Your task to perform on an android device: Clear all items from cart on ebay. Add "energizer triple a" to the cart on ebay Image 0: 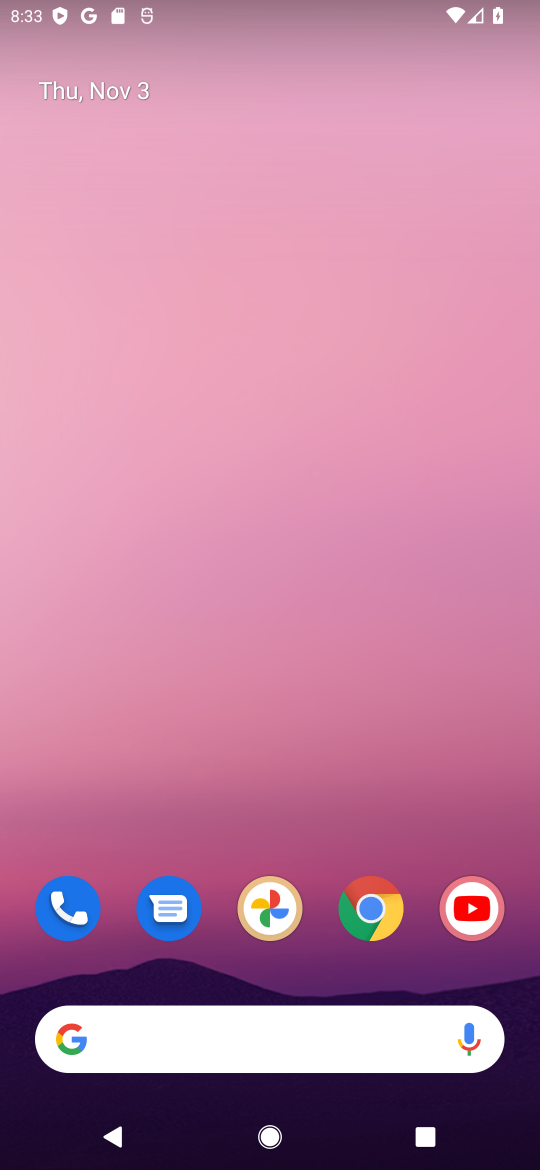
Step 0: click (390, 918)
Your task to perform on an android device: Clear all items from cart on ebay. Add "energizer triple a" to the cart on ebay Image 1: 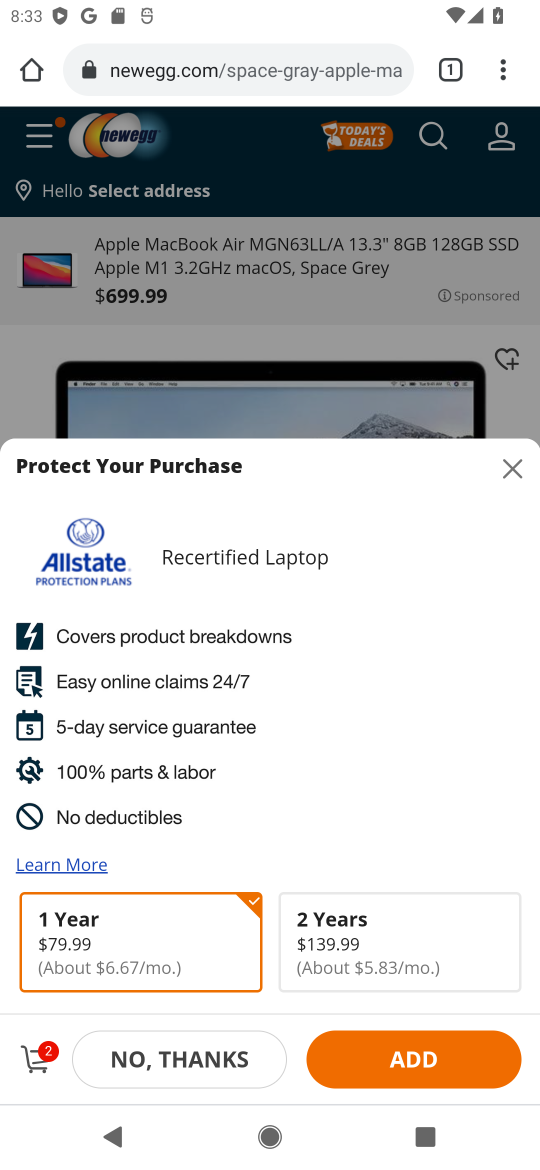
Step 1: click (310, 81)
Your task to perform on an android device: Clear all items from cart on ebay. Add "energizer triple a" to the cart on ebay Image 2: 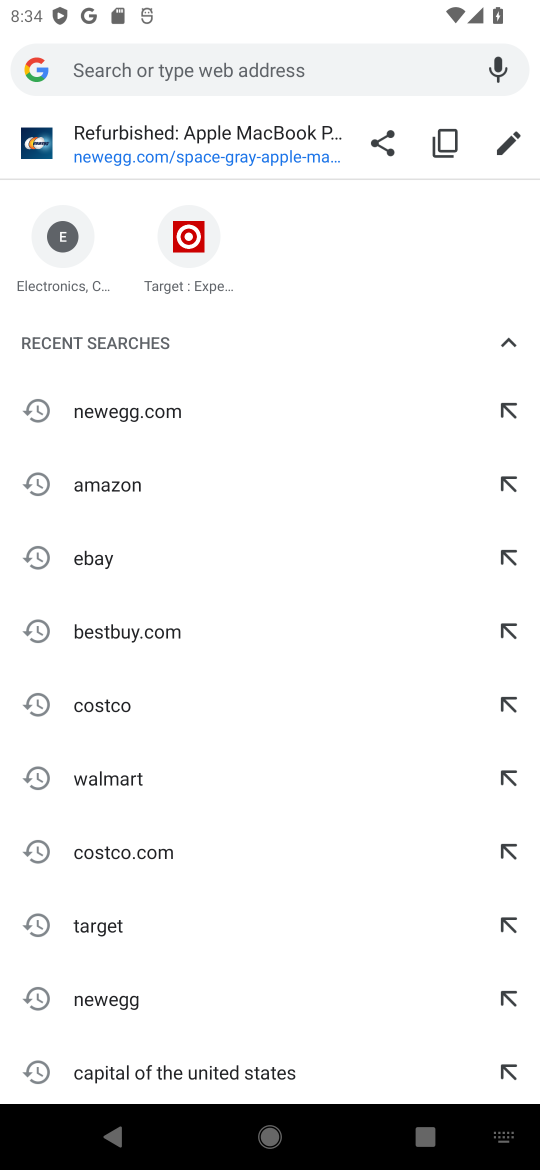
Step 2: click (88, 556)
Your task to perform on an android device: Clear all items from cart on ebay. Add "energizer triple a" to the cart on ebay Image 3: 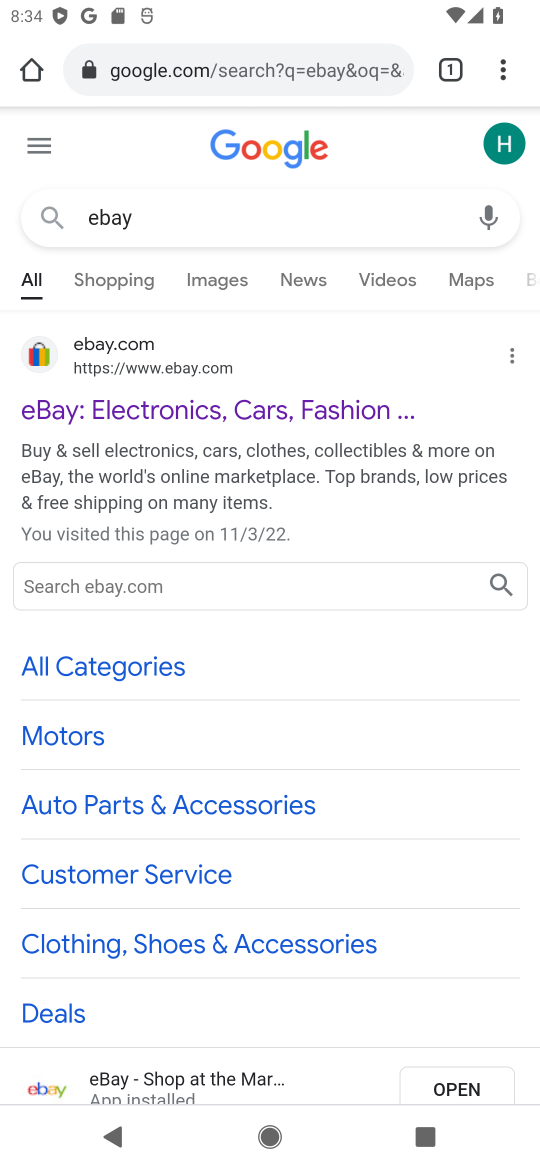
Step 3: click (139, 366)
Your task to perform on an android device: Clear all items from cart on ebay. Add "energizer triple a" to the cart on ebay Image 4: 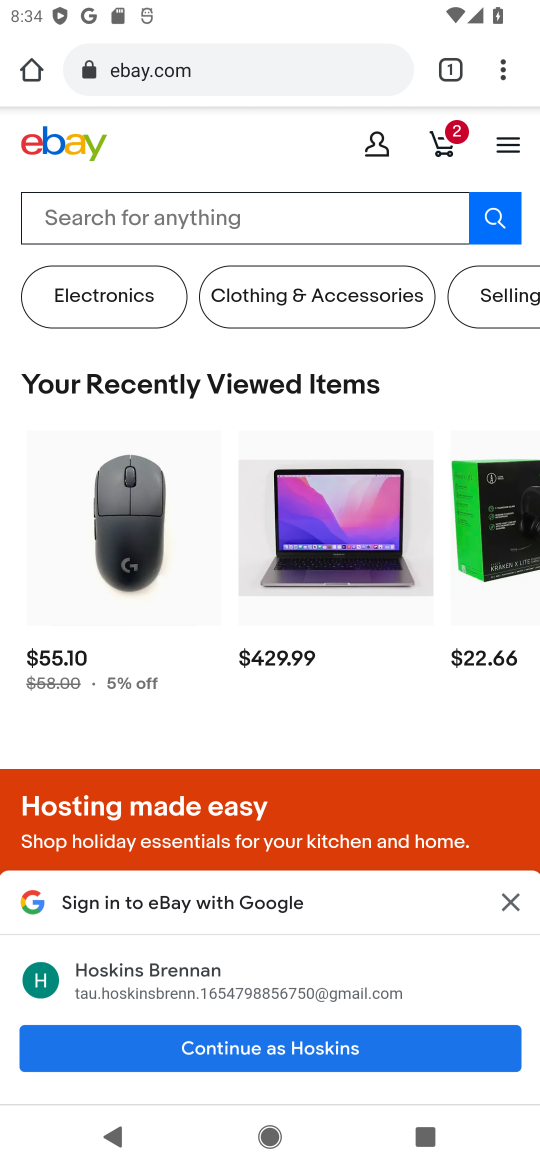
Step 4: click (445, 149)
Your task to perform on an android device: Clear all items from cart on ebay. Add "energizer triple a" to the cart on ebay Image 5: 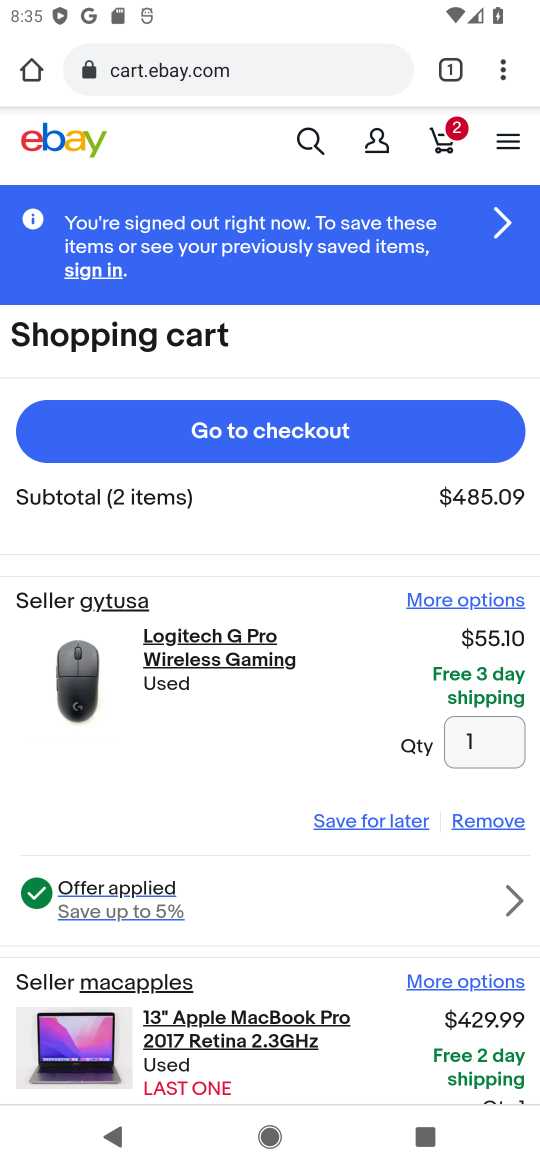
Step 5: click (480, 817)
Your task to perform on an android device: Clear all items from cart on ebay. Add "energizer triple a" to the cart on ebay Image 6: 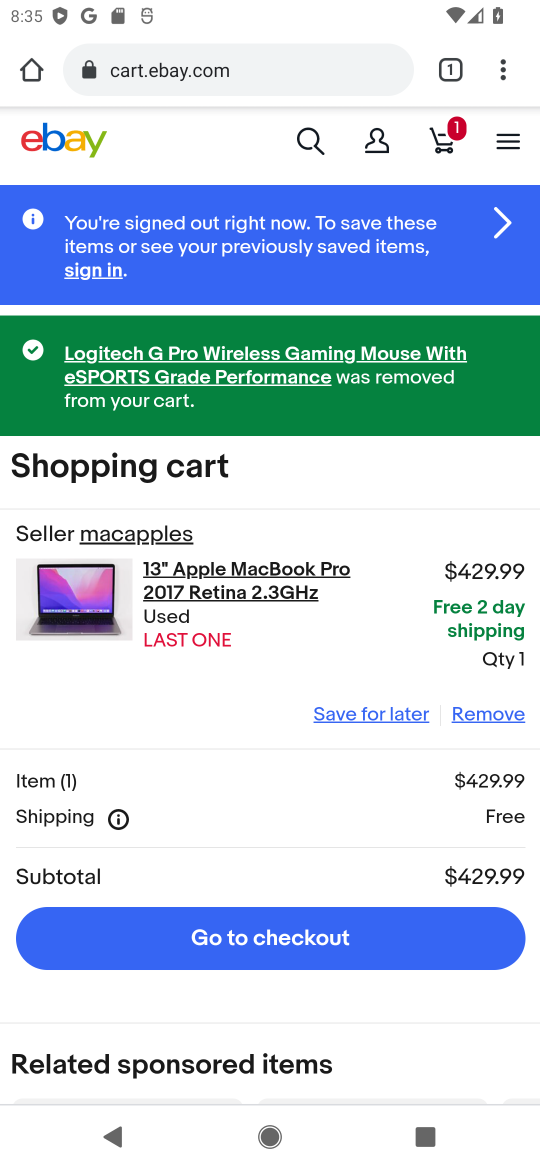
Step 6: click (485, 715)
Your task to perform on an android device: Clear all items from cart on ebay. Add "energizer triple a" to the cart on ebay Image 7: 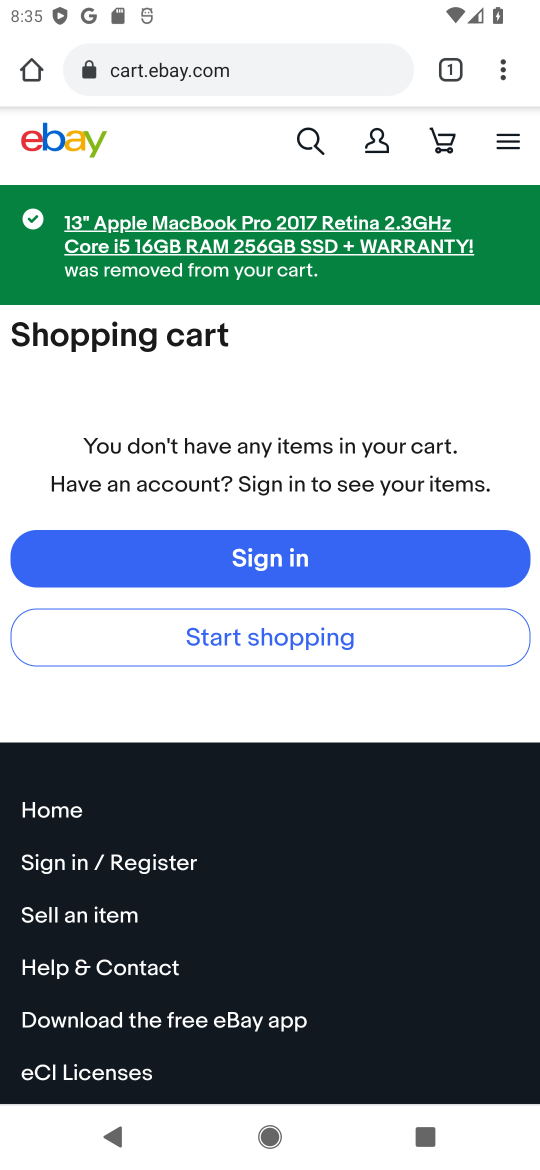
Step 7: click (308, 141)
Your task to perform on an android device: Clear all items from cart on ebay. Add "energizer triple a" to the cart on ebay Image 8: 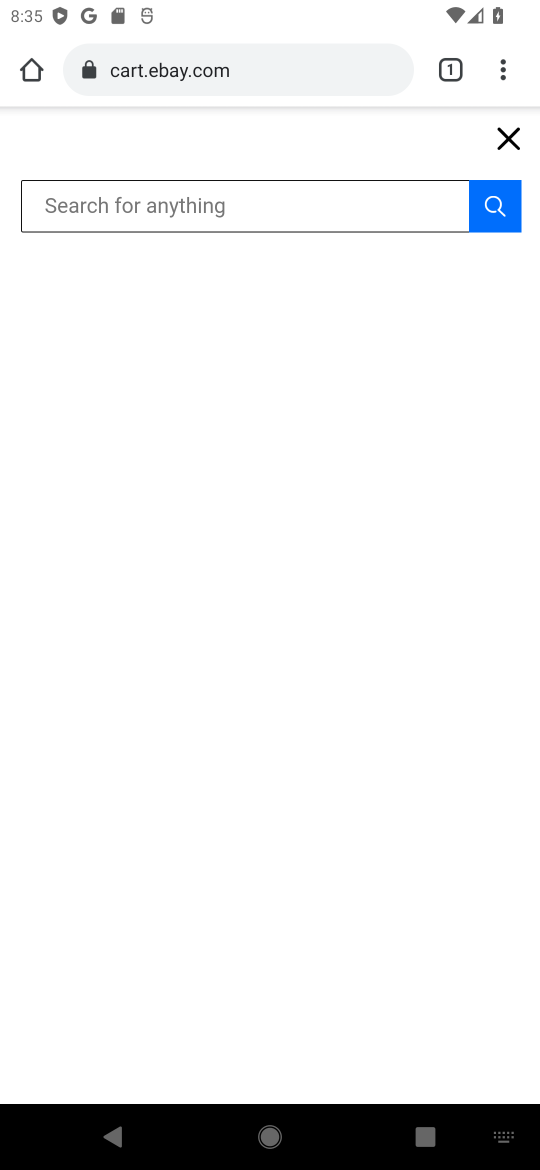
Step 8: type "energizer triple a"
Your task to perform on an android device: Clear all items from cart on ebay. Add "energizer triple a" to the cart on ebay Image 9: 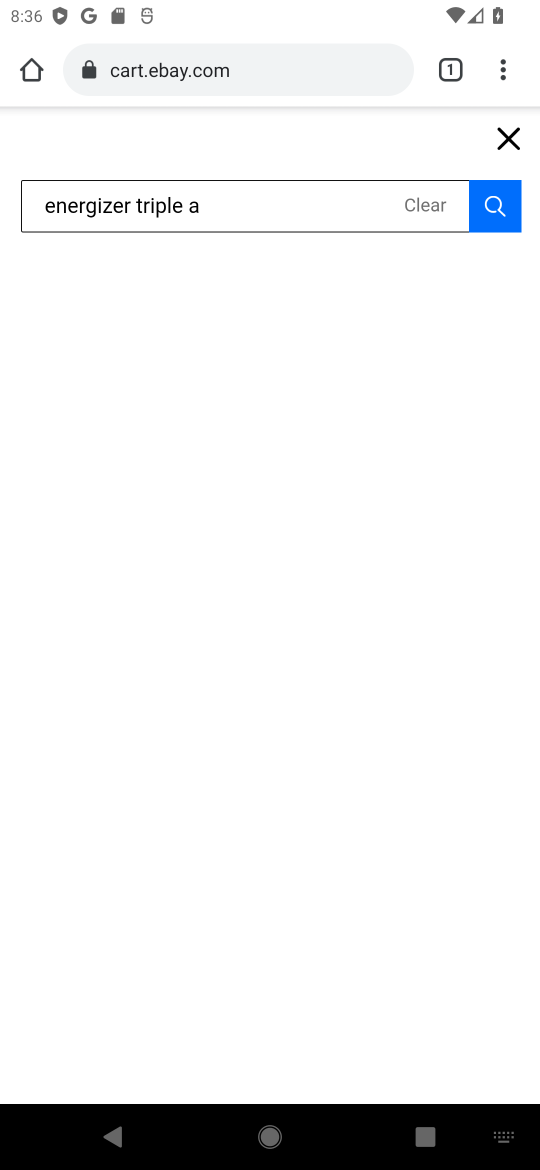
Step 9: click (445, 382)
Your task to perform on an android device: Clear all items from cart on ebay. Add "energizer triple a" to the cart on ebay Image 10: 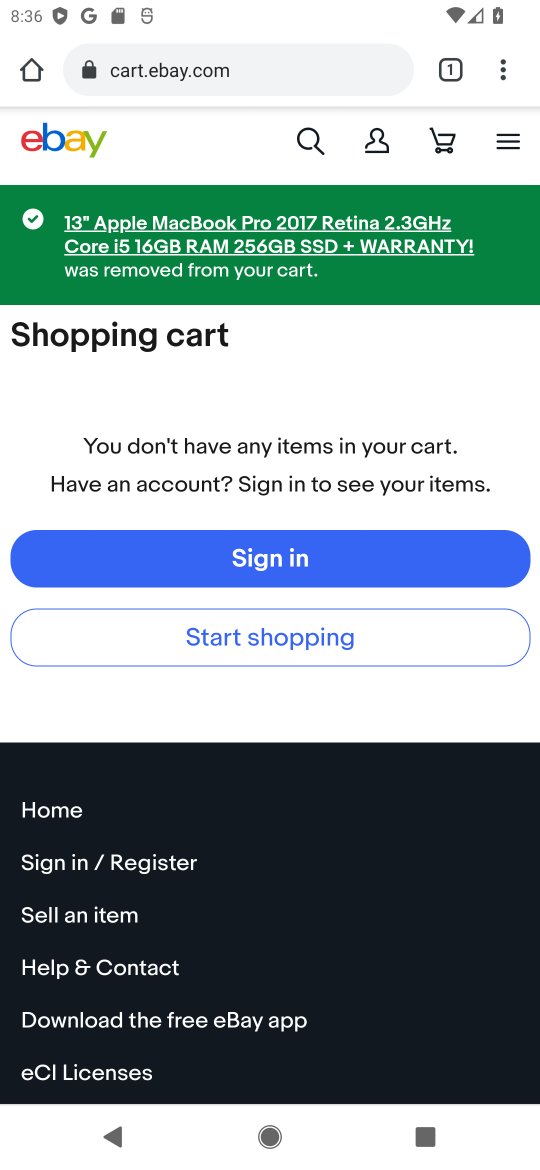
Step 10: click (308, 136)
Your task to perform on an android device: Clear all items from cart on ebay. Add "energizer triple a" to the cart on ebay Image 11: 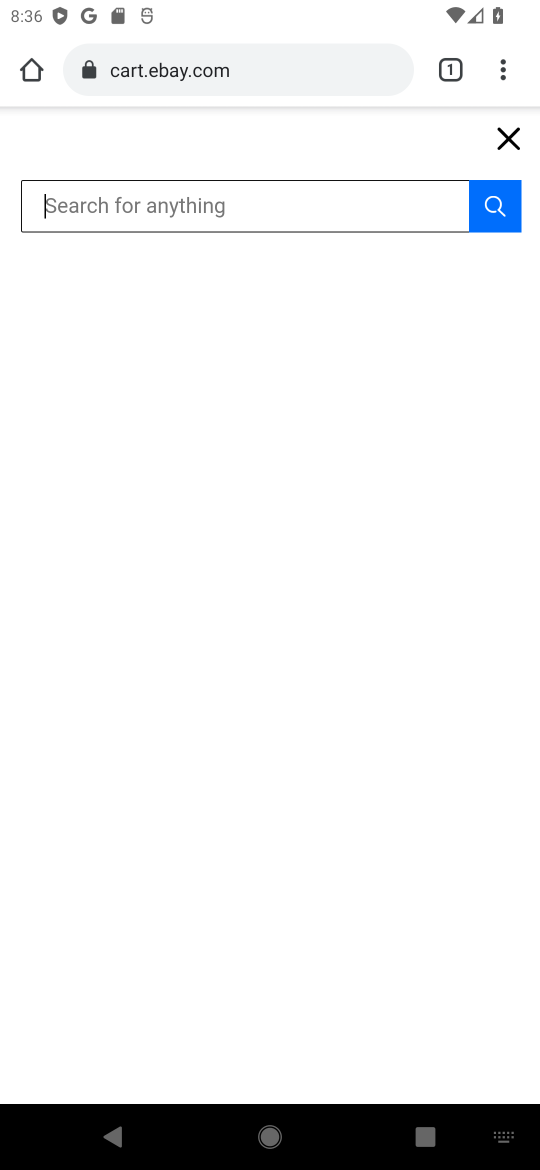
Step 11: type "energizer triple a"
Your task to perform on an android device: Clear all items from cart on ebay. Add "energizer triple a" to the cart on ebay Image 12: 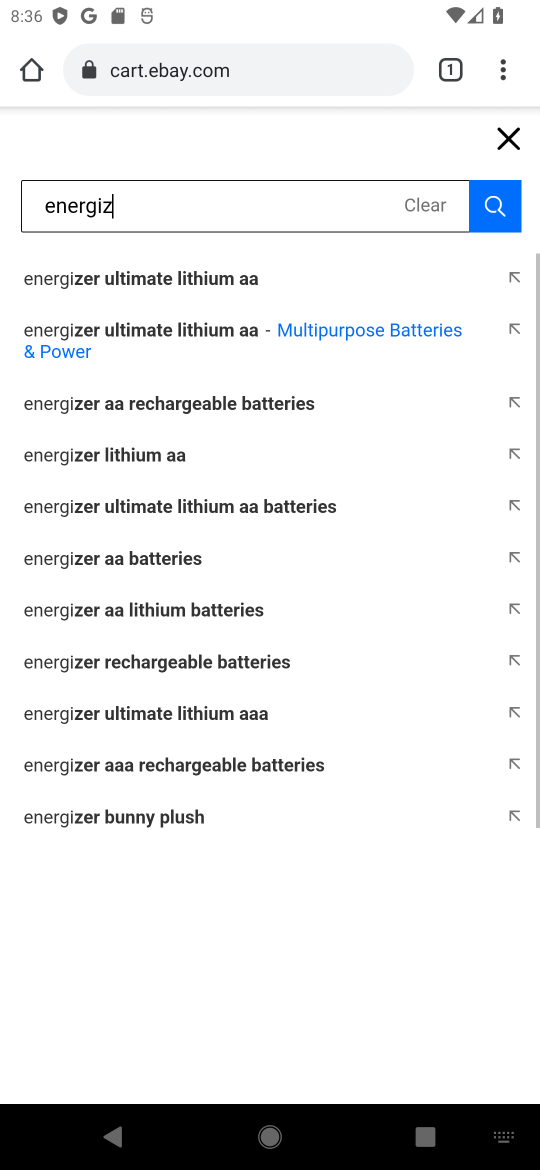
Step 12: press enter
Your task to perform on an android device: Clear all items from cart on ebay. Add "energizer triple a" to the cart on ebay Image 13: 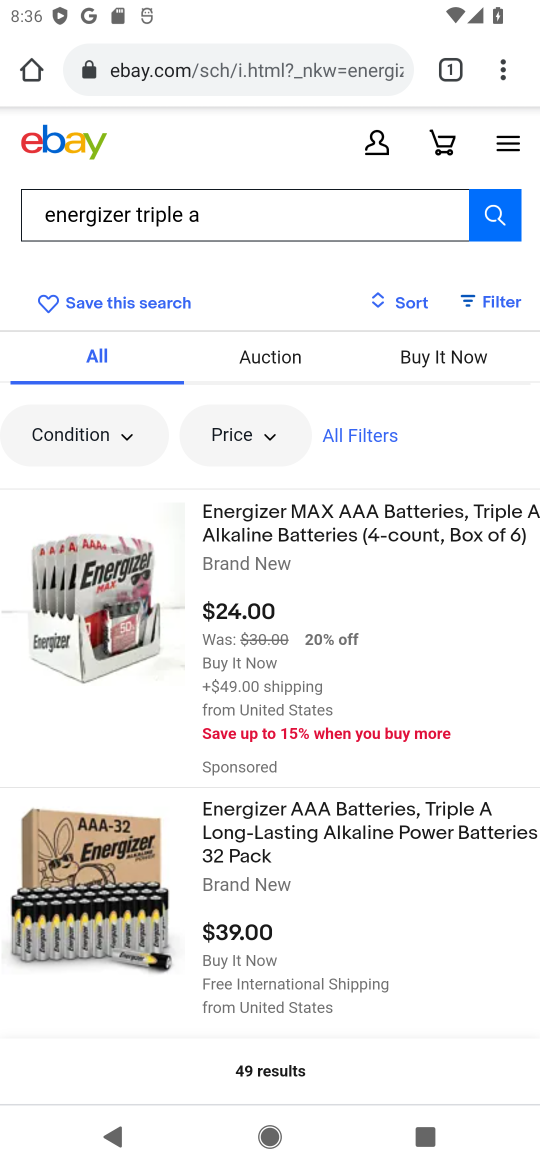
Step 13: click (95, 578)
Your task to perform on an android device: Clear all items from cart on ebay. Add "energizer triple a" to the cart on ebay Image 14: 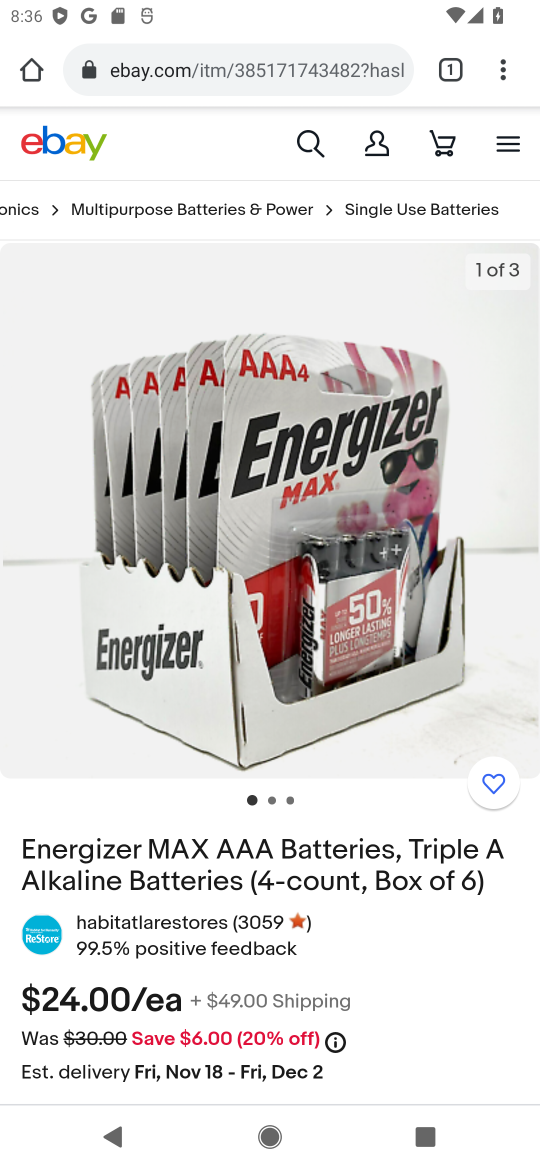
Step 14: drag from (365, 918) to (348, 333)
Your task to perform on an android device: Clear all items from cart on ebay. Add "energizer triple a" to the cart on ebay Image 15: 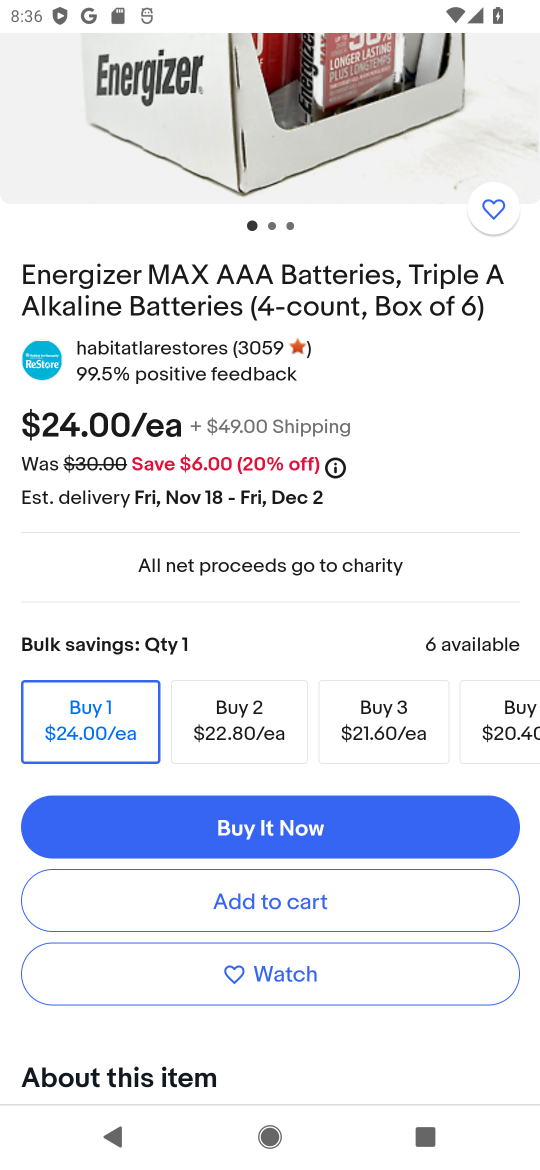
Step 15: click (297, 897)
Your task to perform on an android device: Clear all items from cart on ebay. Add "energizer triple a" to the cart on ebay Image 16: 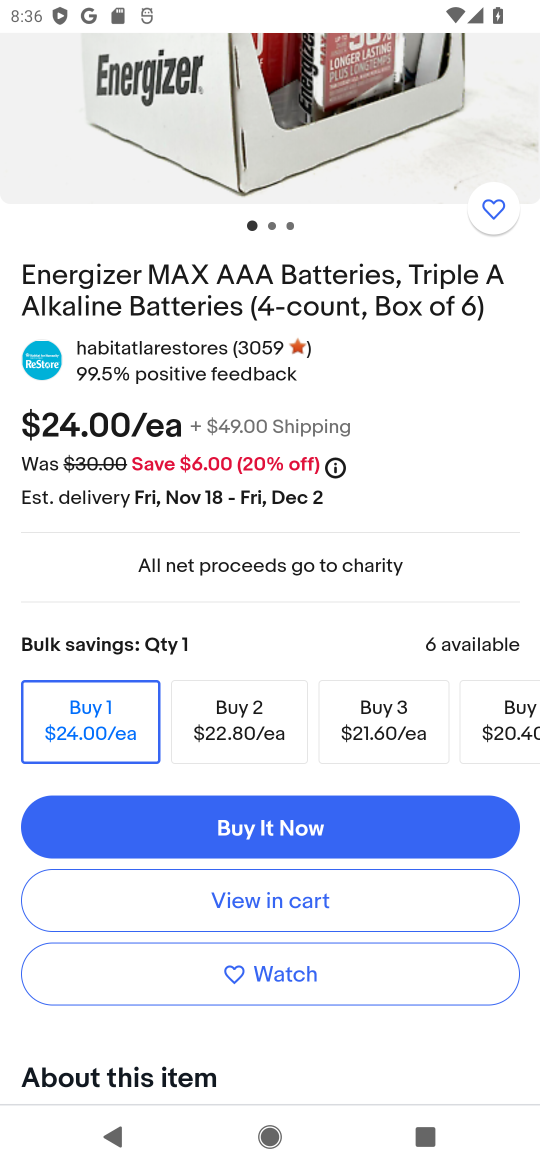
Step 16: task complete